Your task to perform on an android device: turn off location history Image 0: 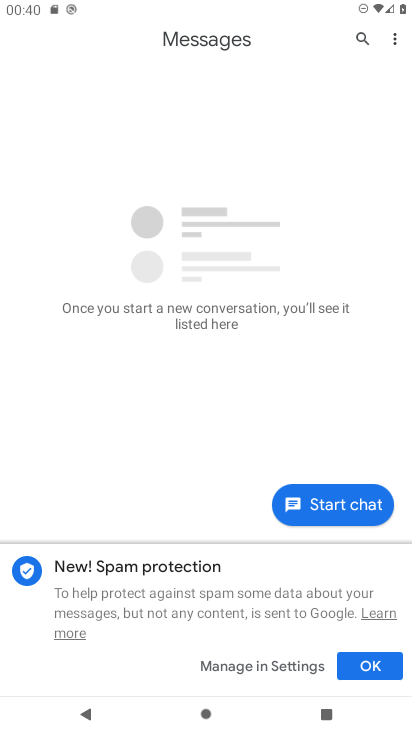
Step 0: press home button
Your task to perform on an android device: turn off location history Image 1: 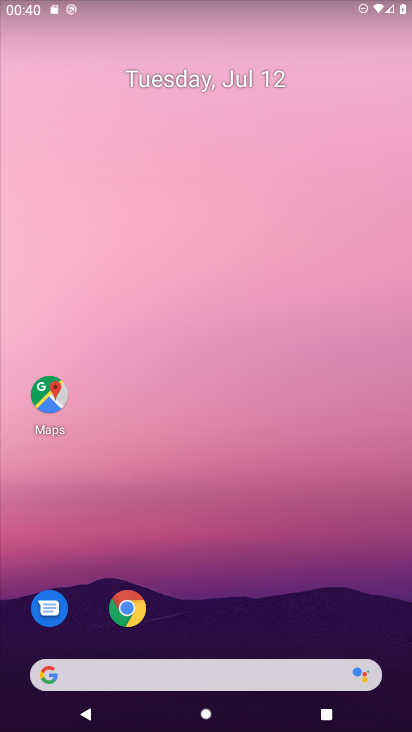
Step 1: drag from (208, 644) to (213, 52)
Your task to perform on an android device: turn off location history Image 2: 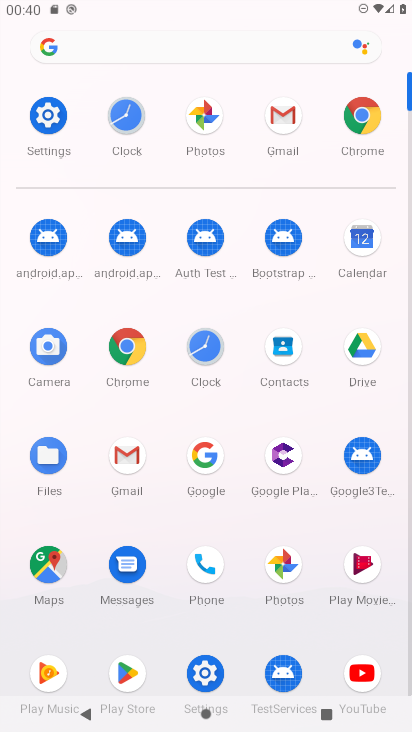
Step 2: click (21, 131)
Your task to perform on an android device: turn off location history Image 3: 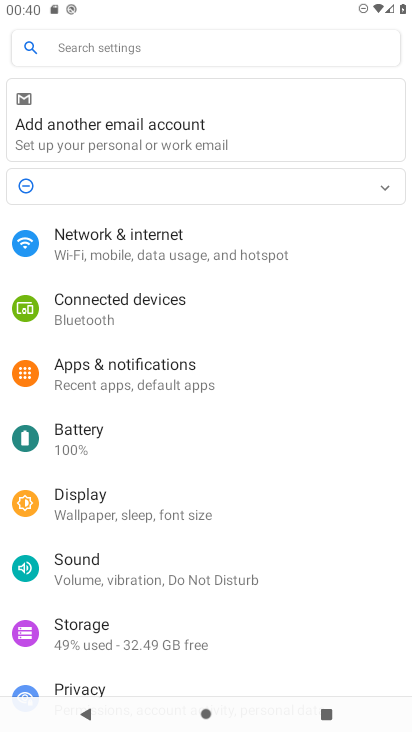
Step 3: drag from (121, 637) to (69, 293)
Your task to perform on an android device: turn off location history Image 4: 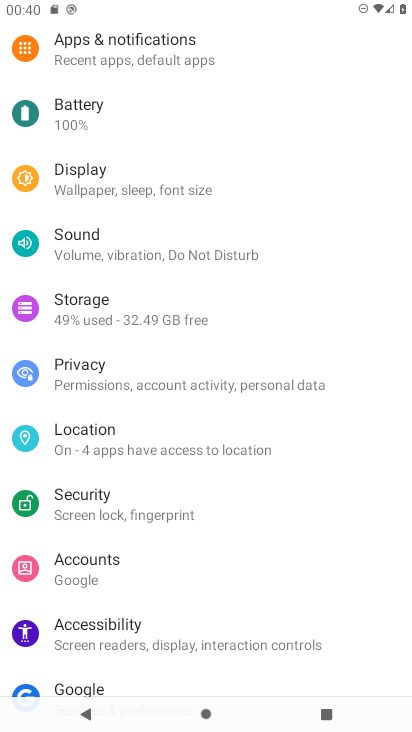
Step 4: click (84, 442)
Your task to perform on an android device: turn off location history Image 5: 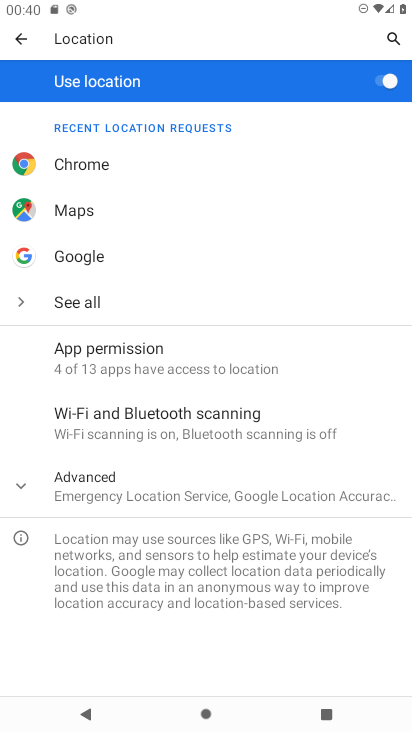
Step 5: click (114, 477)
Your task to perform on an android device: turn off location history Image 6: 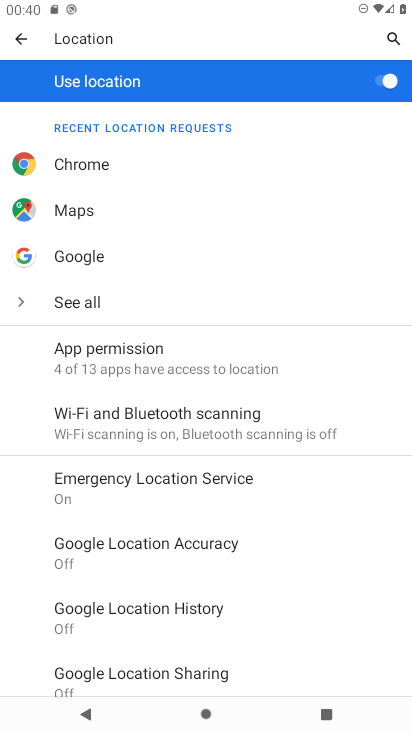
Step 6: click (211, 606)
Your task to perform on an android device: turn off location history Image 7: 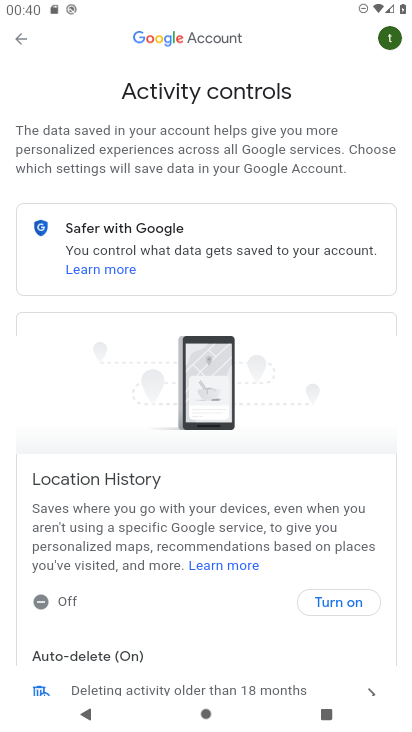
Step 7: task complete